Your task to perform on an android device: How do I get to the nearest Starbucks? Image 0: 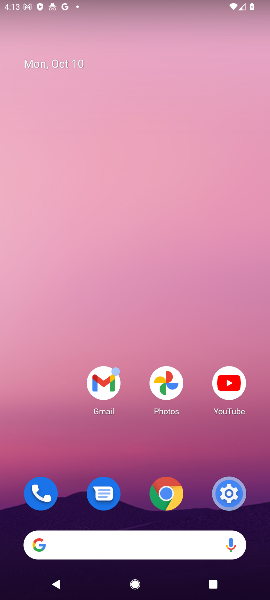
Step 0: click (197, 551)
Your task to perform on an android device: How do I get to the nearest Starbucks? Image 1: 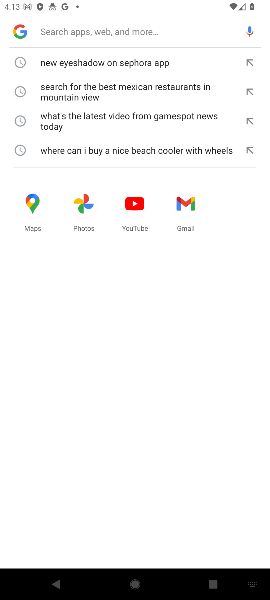
Step 1: type "How do I get to the nearest Starbucks?"
Your task to perform on an android device: How do I get to the nearest Starbucks? Image 2: 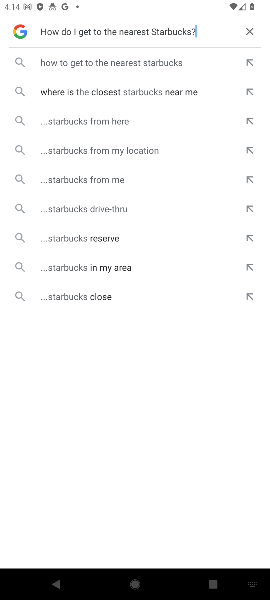
Step 2: click (73, 59)
Your task to perform on an android device: How do I get to the nearest Starbucks? Image 3: 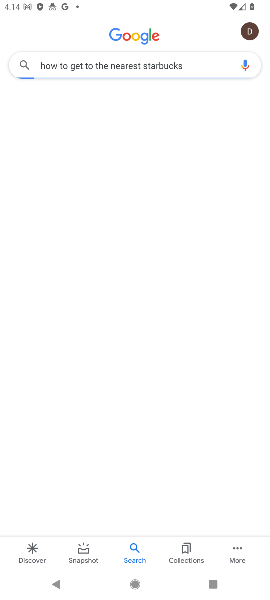
Step 3: task complete